Your task to perform on an android device: Open CNN.com Image 0: 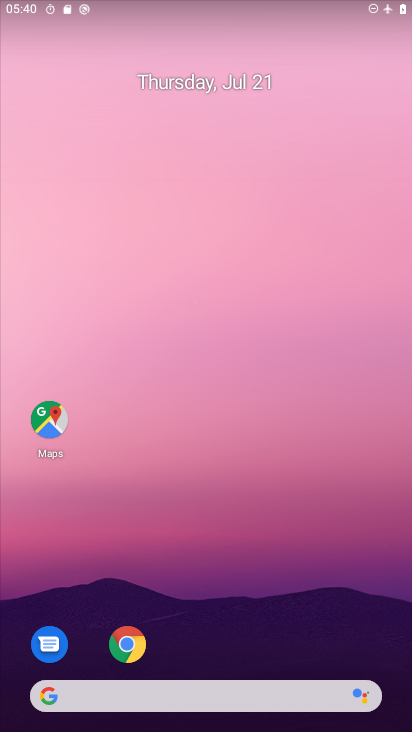
Step 0: click (128, 650)
Your task to perform on an android device: Open CNN.com Image 1: 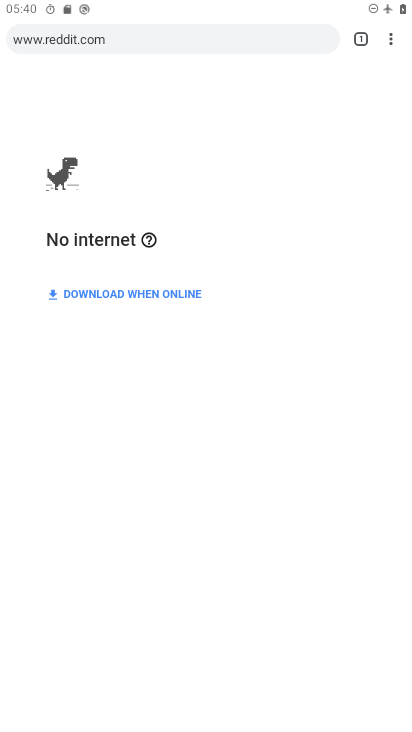
Step 1: press back button
Your task to perform on an android device: Open CNN.com Image 2: 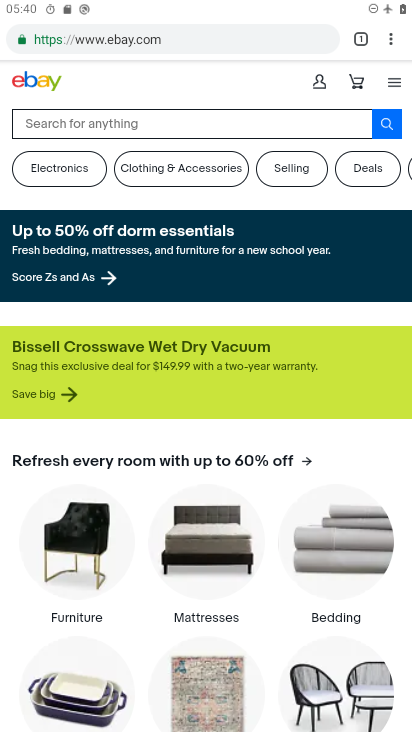
Step 2: press home button
Your task to perform on an android device: Open CNN.com Image 3: 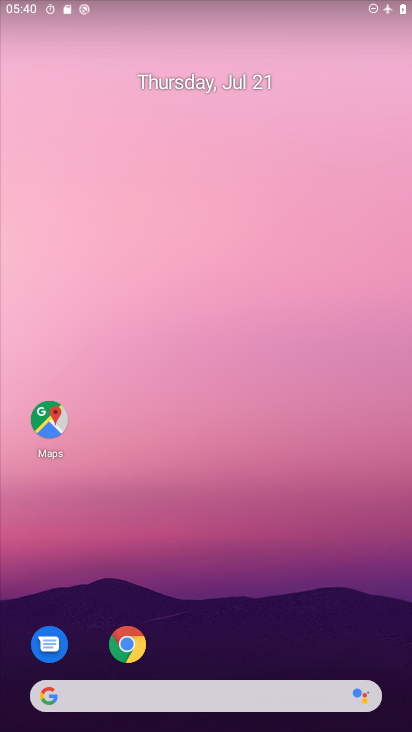
Step 3: drag from (188, 510) to (188, 84)
Your task to perform on an android device: Open CNN.com Image 4: 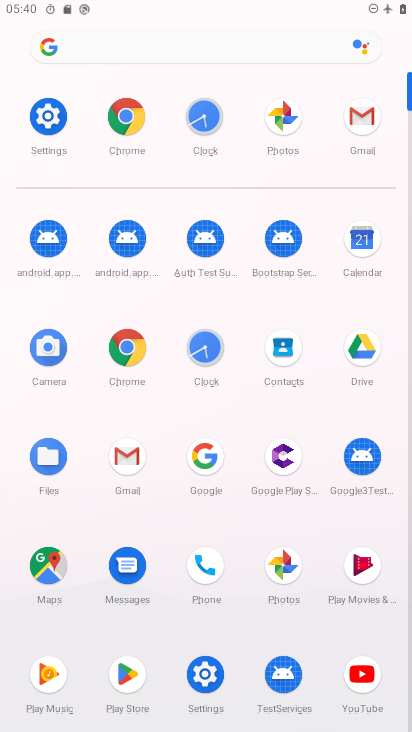
Step 4: click (52, 121)
Your task to perform on an android device: Open CNN.com Image 5: 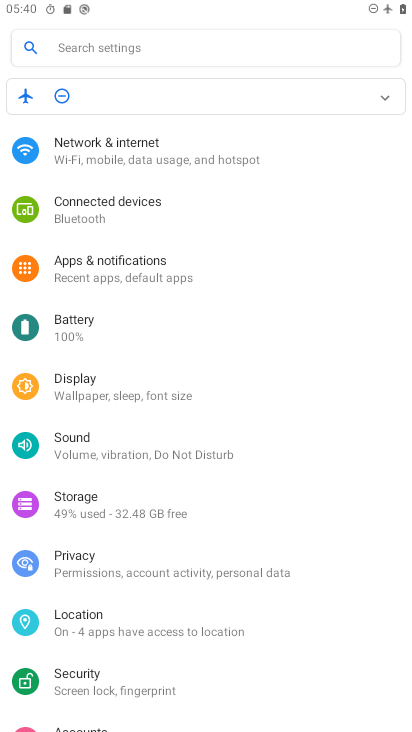
Step 5: click (385, 96)
Your task to perform on an android device: Open CNN.com Image 6: 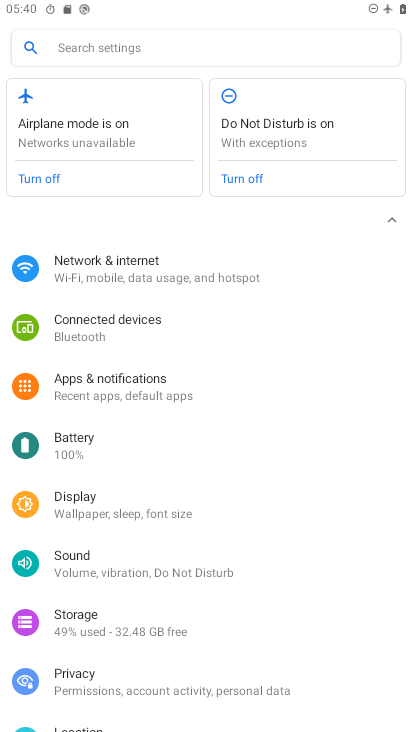
Step 6: click (33, 178)
Your task to perform on an android device: Open CNN.com Image 7: 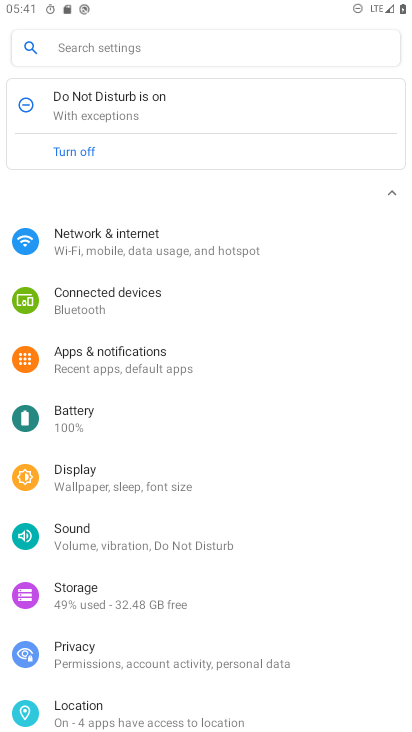
Step 7: press home button
Your task to perform on an android device: Open CNN.com Image 8: 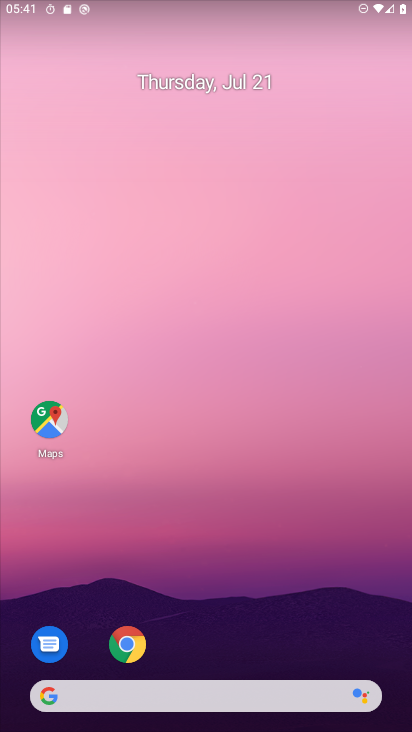
Step 8: click (123, 652)
Your task to perform on an android device: Open CNN.com Image 9: 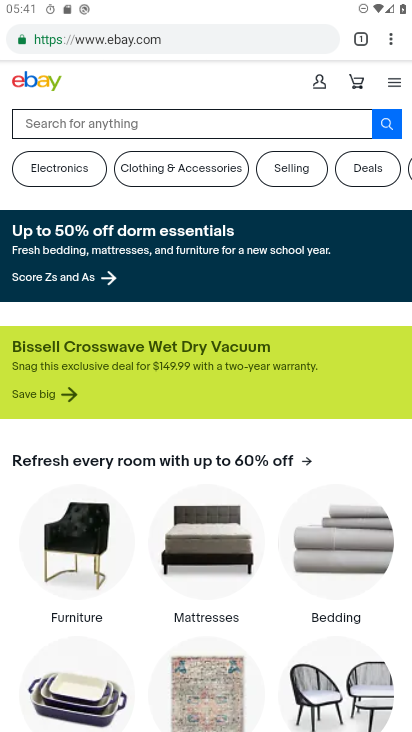
Step 9: click (121, 43)
Your task to perform on an android device: Open CNN.com Image 10: 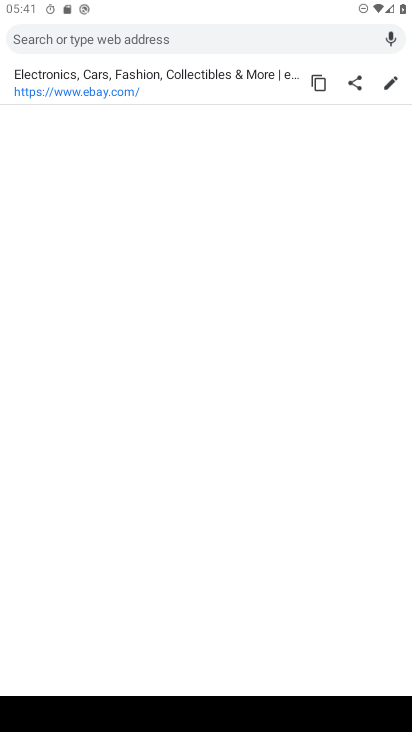
Step 10: type "www.cnn.com"
Your task to perform on an android device: Open CNN.com Image 11: 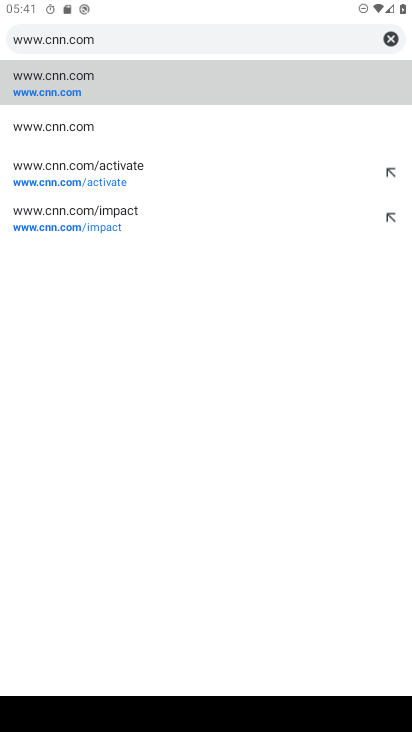
Step 11: click (65, 77)
Your task to perform on an android device: Open CNN.com Image 12: 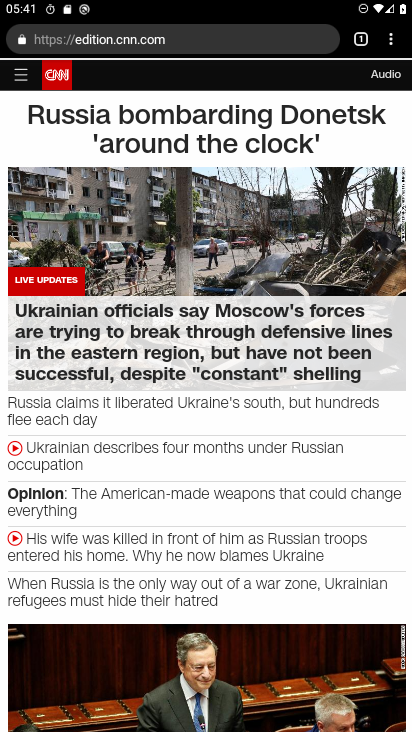
Step 12: task complete